Your task to perform on an android device: Go to wifi settings Image 0: 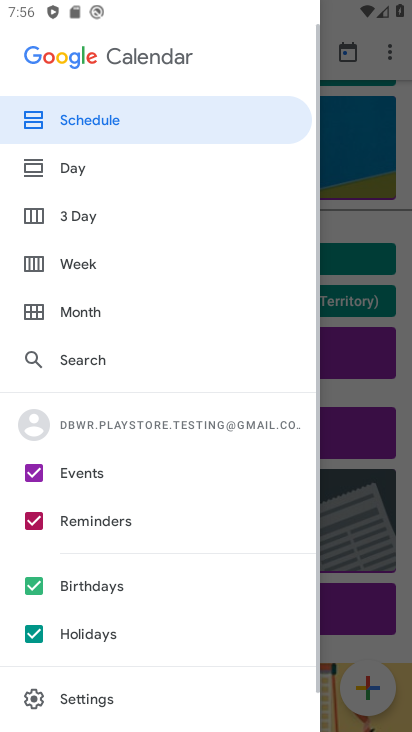
Step 0: press home button
Your task to perform on an android device: Go to wifi settings Image 1: 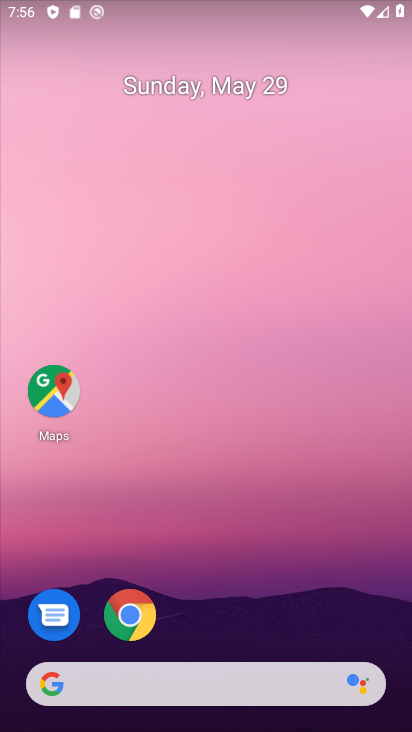
Step 1: drag from (287, 604) to (245, 185)
Your task to perform on an android device: Go to wifi settings Image 2: 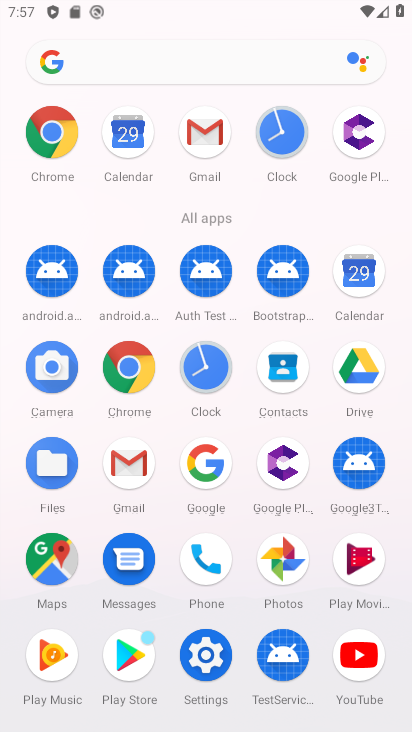
Step 2: click (208, 649)
Your task to perform on an android device: Go to wifi settings Image 3: 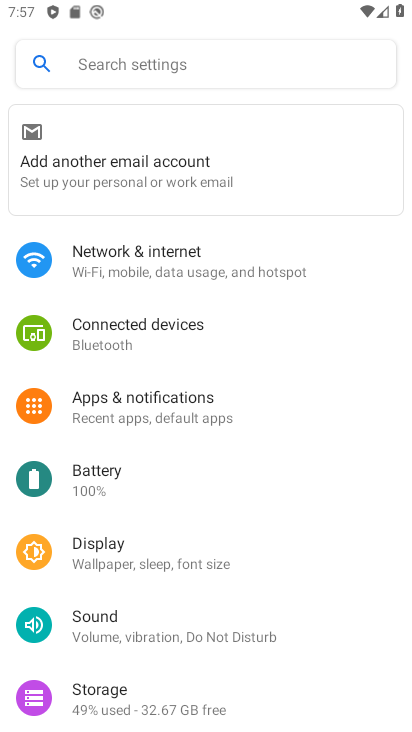
Step 3: click (156, 264)
Your task to perform on an android device: Go to wifi settings Image 4: 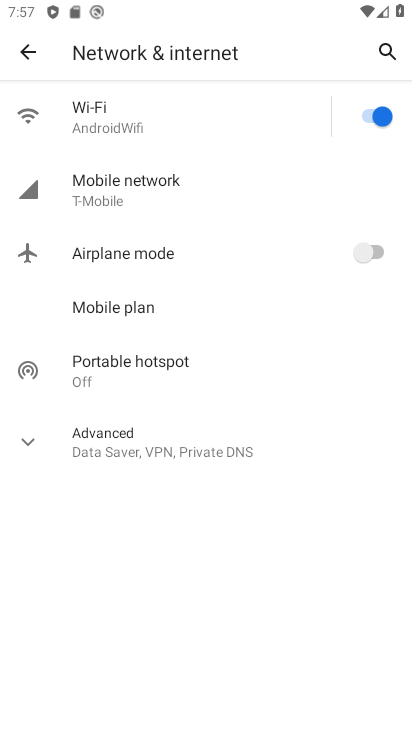
Step 4: click (176, 123)
Your task to perform on an android device: Go to wifi settings Image 5: 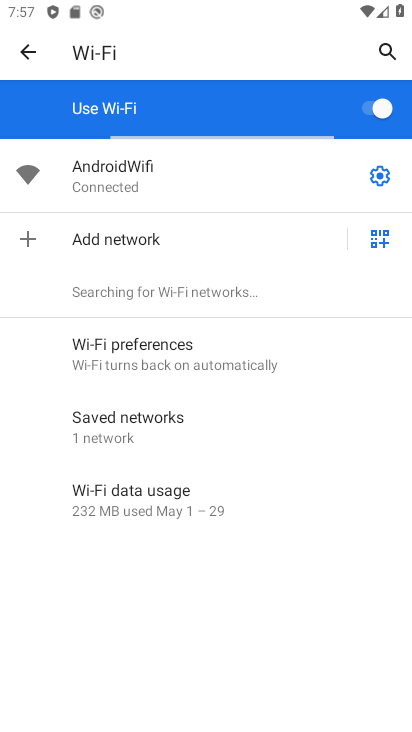
Step 5: task complete